Your task to perform on an android device: find snoozed emails in the gmail app Image 0: 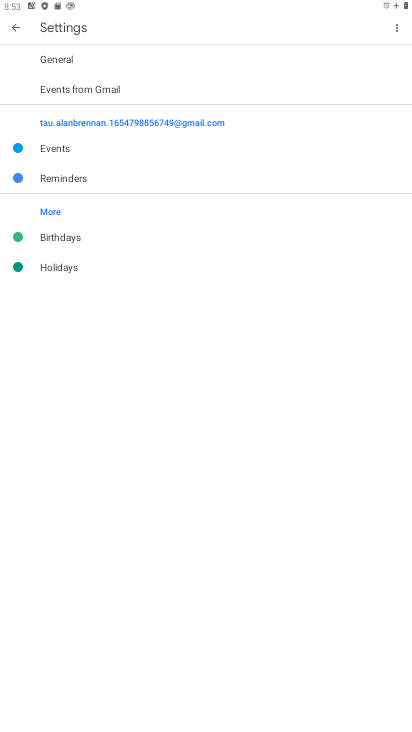
Step 0: press home button
Your task to perform on an android device: find snoozed emails in the gmail app Image 1: 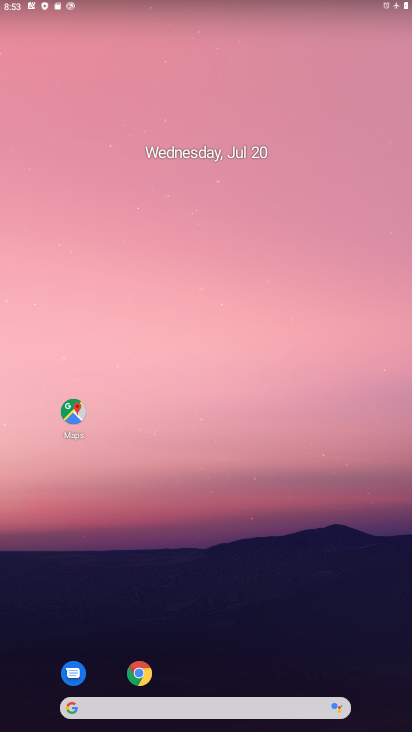
Step 1: drag from (213, 728) to (214, 176)
Your task to perform on an android device: find snoozed emails in the gmail app Image 2: 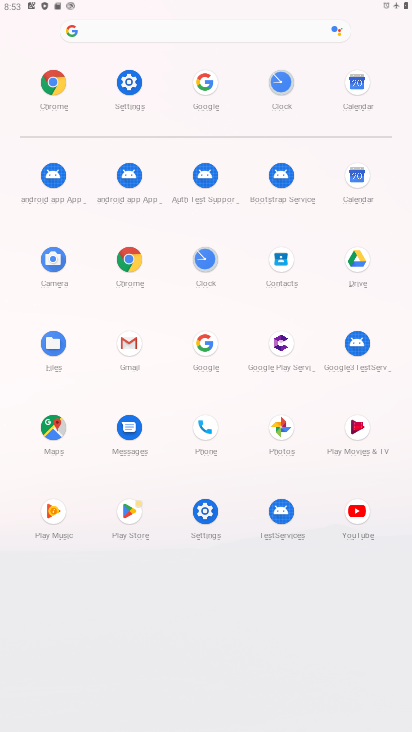
Step 2: click (122, 341)
Your task to perform on an android device: find snoozed emails in the gmail app Image 3: 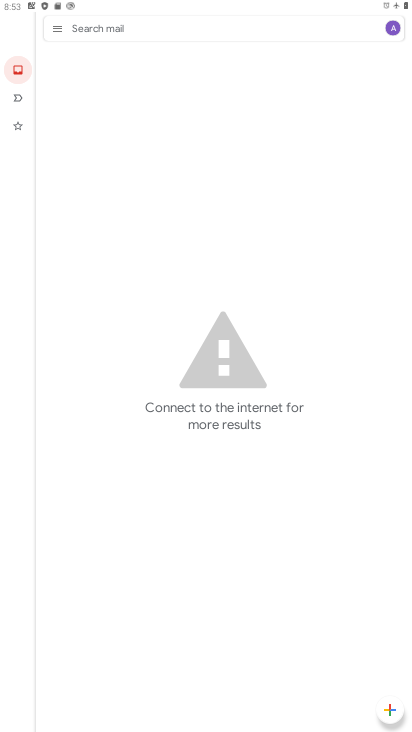
Step 3: click (53, 28)
Your task to perform on an android device: find snoozed emails in the gmail app Image 4: 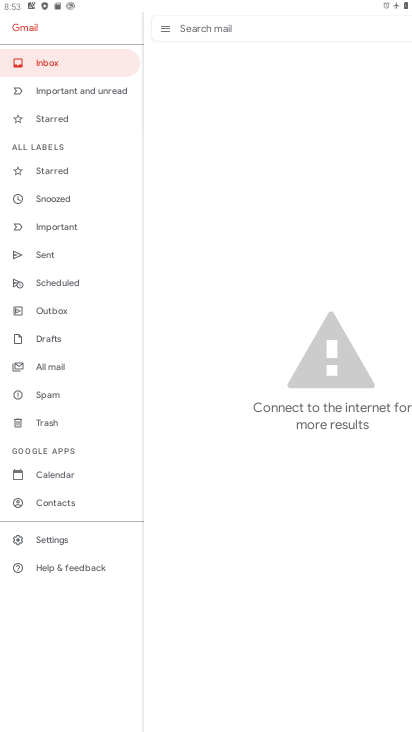
Step 4: click (59, 195)
Your task to perform on an android device: find snoozed emails in the gmail app Image 5: 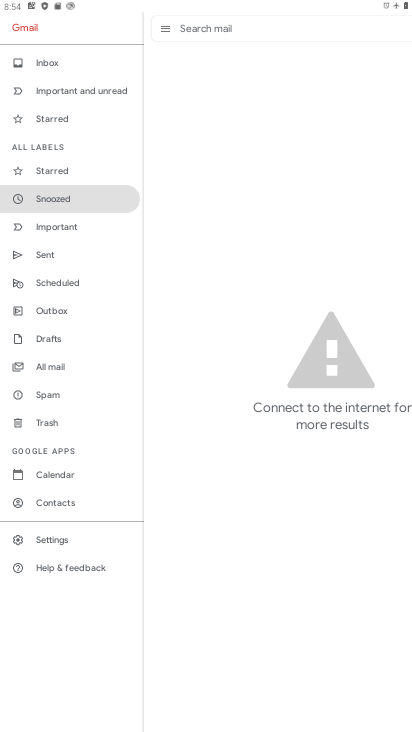
Step 5: task complete